Your task to perform on an android device: Go to settings Image 0: 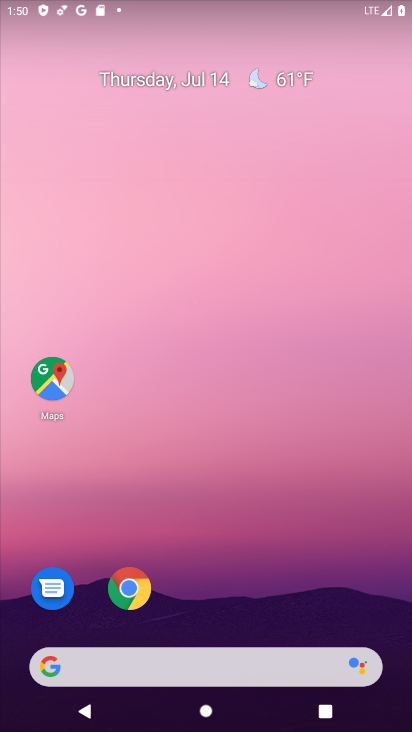
Step 0: drag from (222, 598) to (290, 66)
Your task to perform on an android device: Go to settings Image 1: 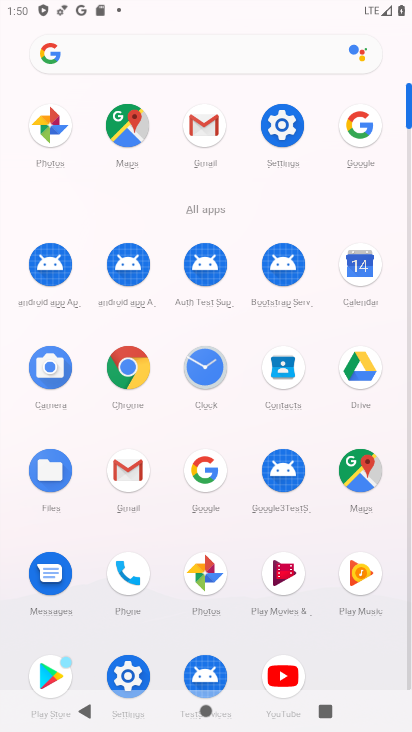
Step 1: click (273, 125)
Your task to perform on an android device: Go to settings Image 2: 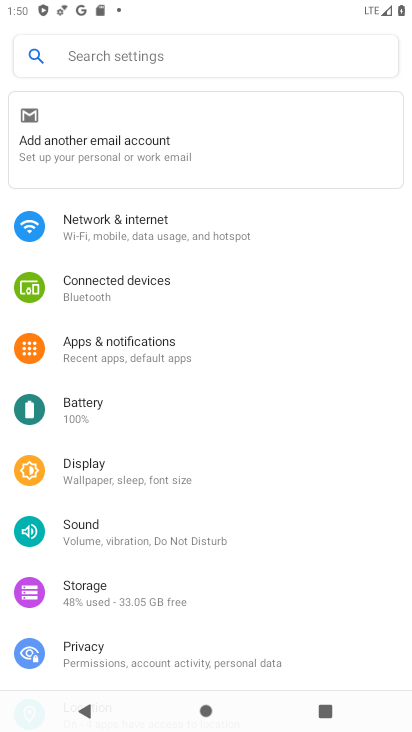
Step 2: task complete